Your task to perform on an android device: add a label to a message in the gmail app Image 0: 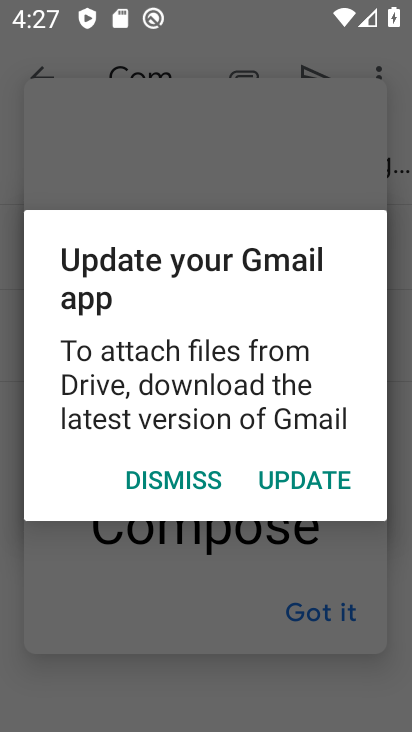
Step 0: press home button
Your task to perform on an android device: add a label to a message in the gmail app Image 1: 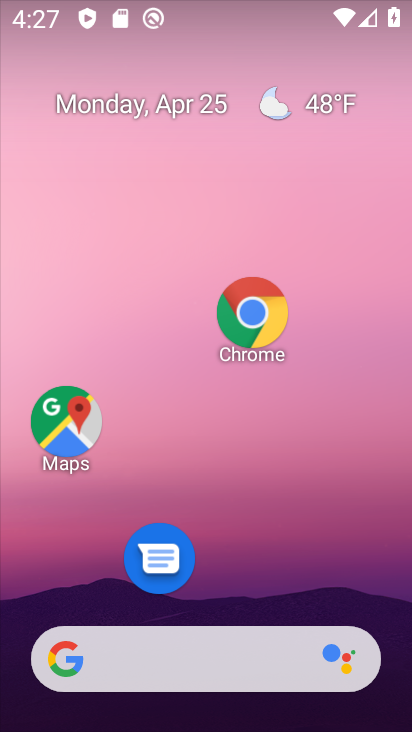
Step 1: drag from (325, 405) to (318, 41)
Your task to perform on an android device: add a label to a message in the gmail app Image 2: 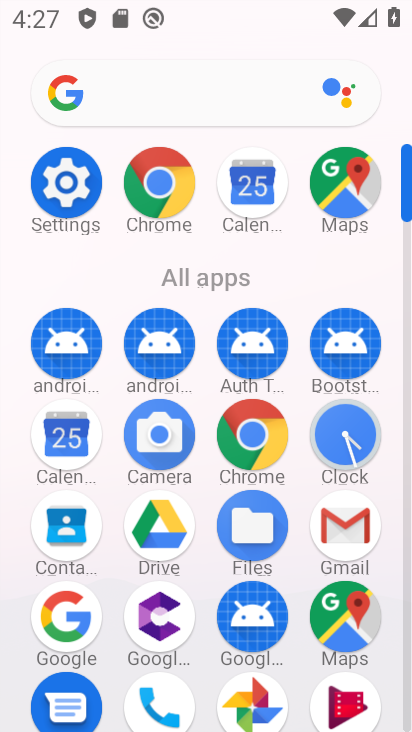
Step 2: click (352, 533)
Your task to perform on an android device: add a label to a message in the gmail app Image 3: 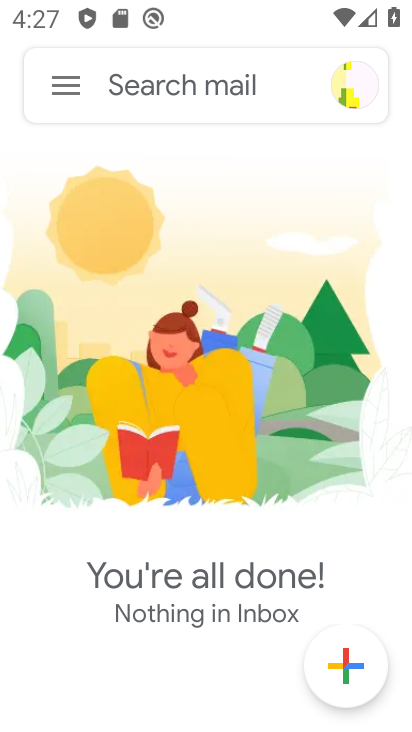
Step 3: click (43, 91)
Your task to perform on an android device: add a label to a message in the gmail app Image 4: 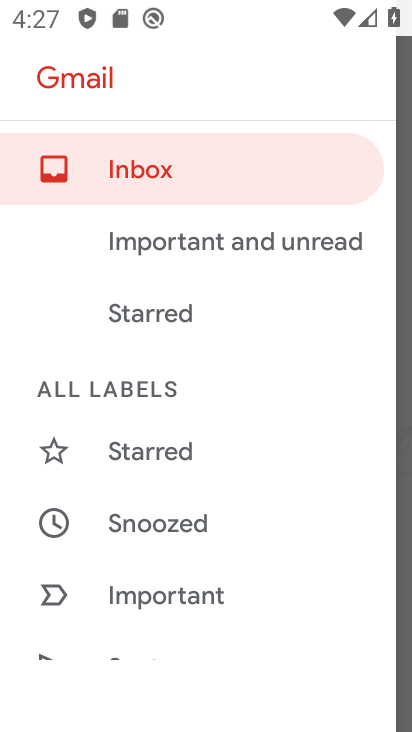
Step 4: click (146, 167)
Your task to perform on an android device: add a label to a message in the gmail app Image 5: 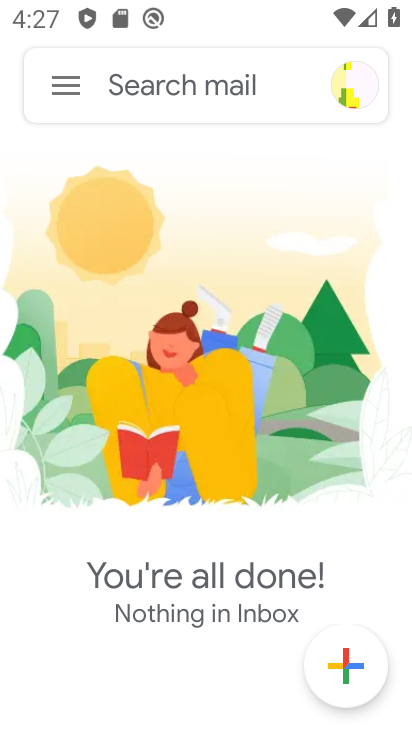
Step 5: click (69, 90)
Your task to perform on an android device: add a label to a message in the gmail app Image 6: 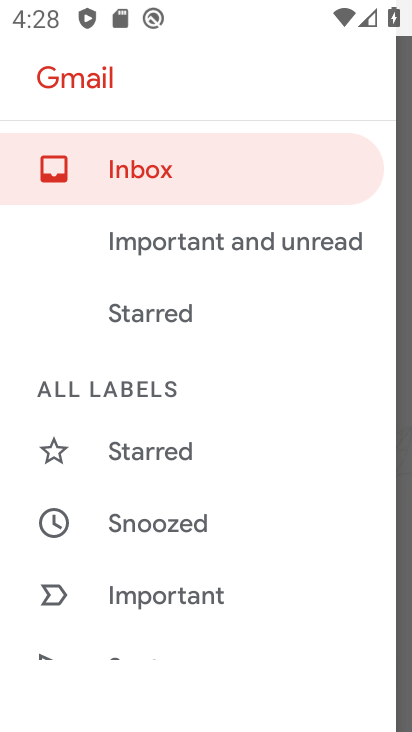
Step 6: task complete